Your task to perform on an android device: Go to eBay Image 0: 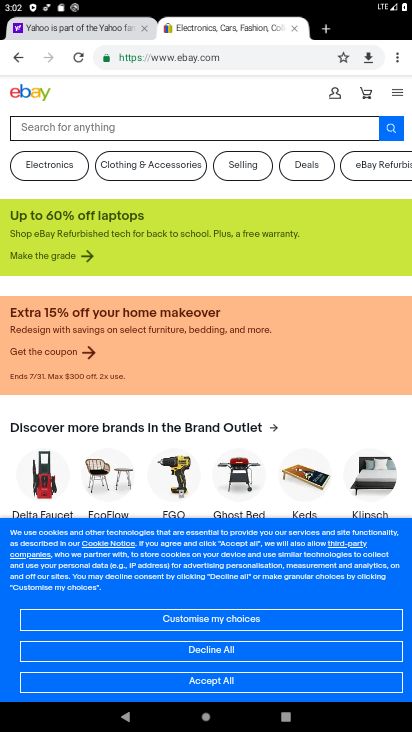
Step 0: task complete